Your task to perform on an android device: Go to battery settings Image 0: 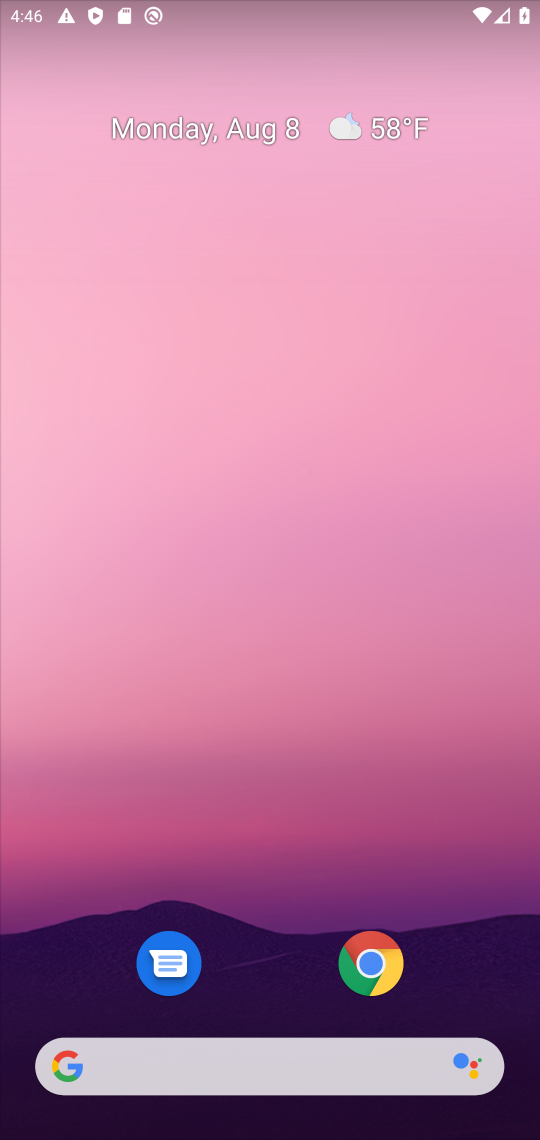
Step 0: click (177, 289)
Your task to perform on an android device: Go to battery settings Image 1: 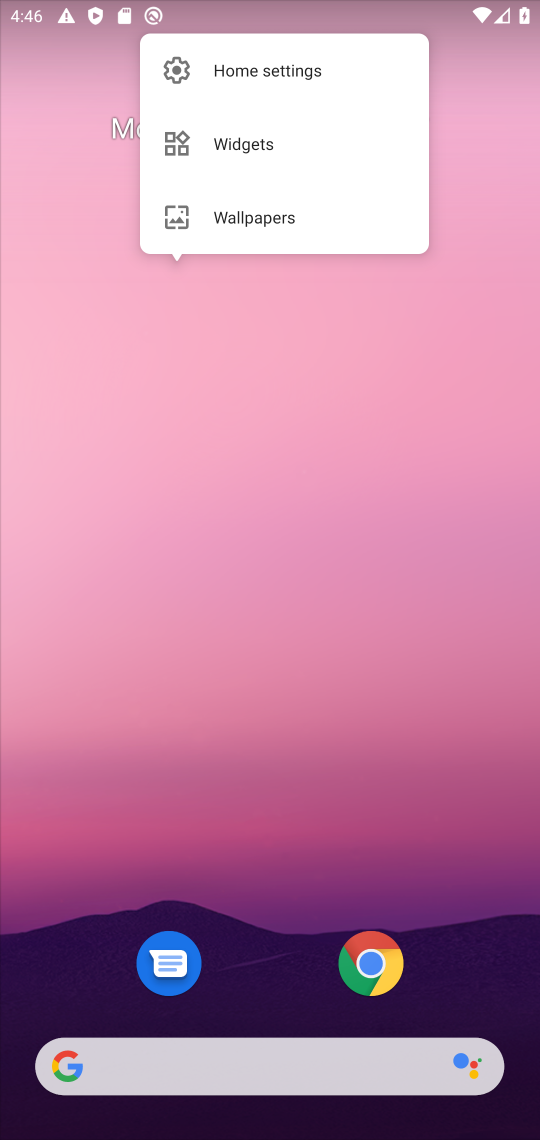
Step 1: click (279, 687)
Your task to perform on an android device: Go to battery settings Image 2: 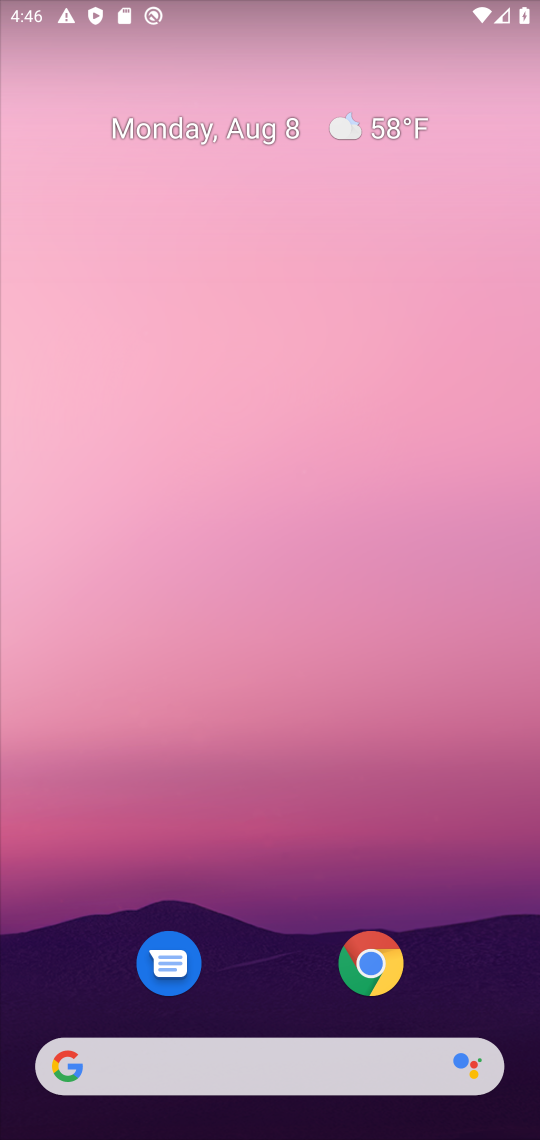
Step 2: drag from (258, 873) to (339, 11)
Your task to perform on an android device: Go to battery settings Image 3: 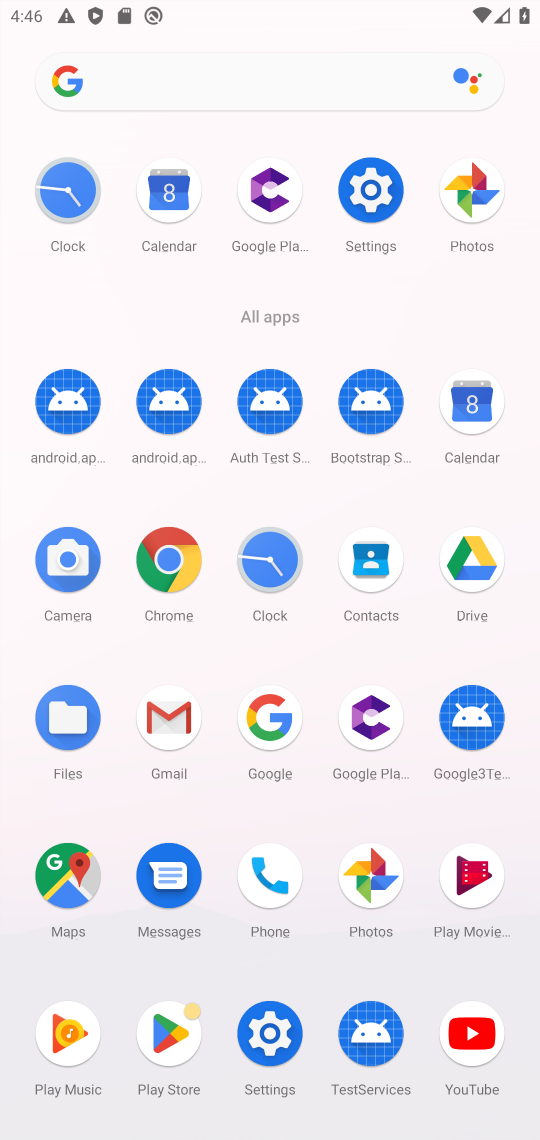
Step 3: click (370, 191)
Your task to perform on an android device: Go to battery settings Image 4: 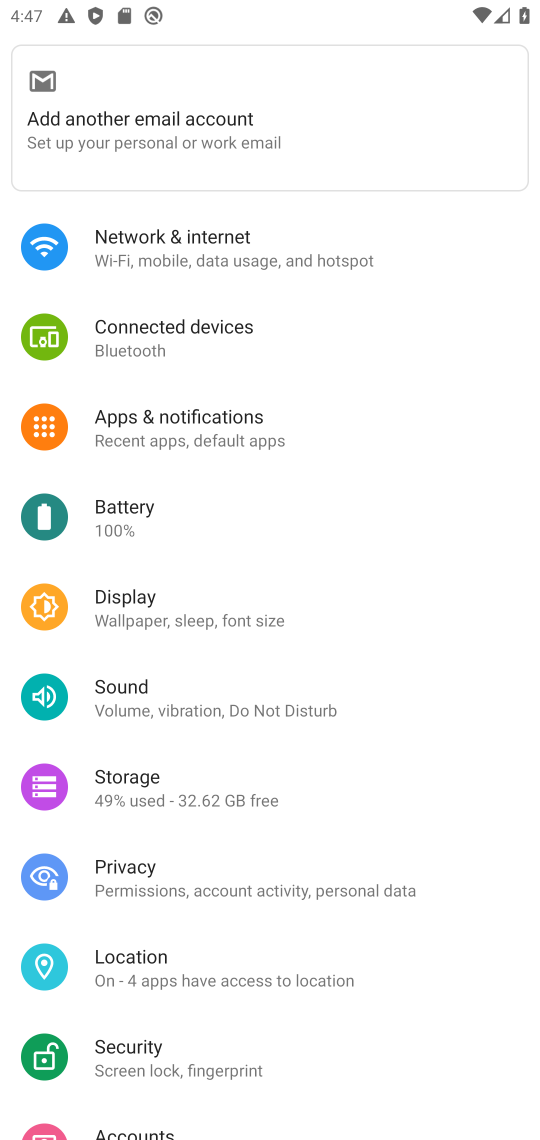
Step 4: click (162, 511)
Your task to perform on an android device: Go to battery settings Image 5: 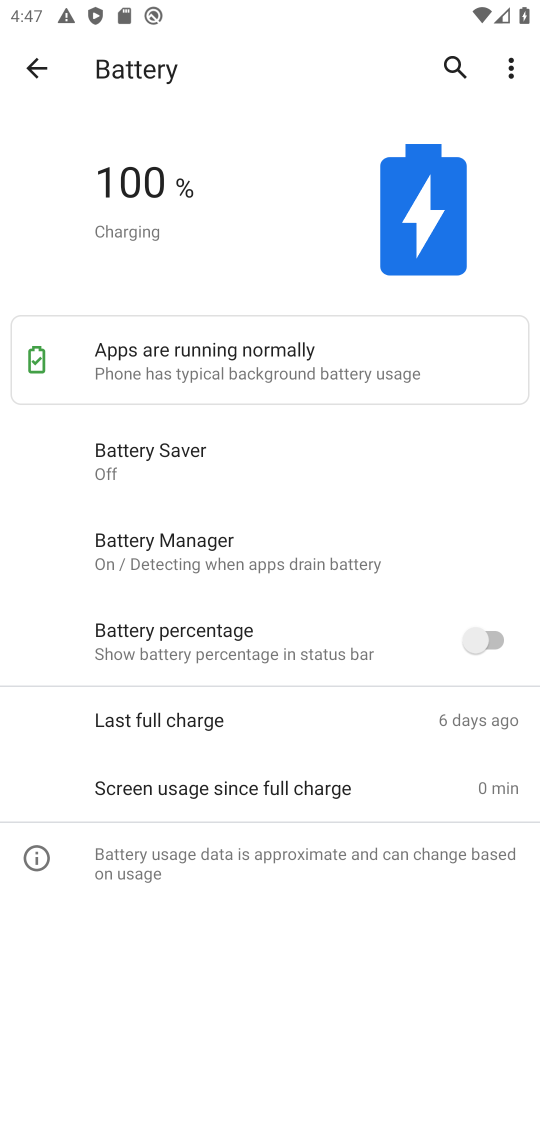
Step 5: task complete